Your task to perform on an android device: Open calendar and show me the third week of next month Image 0: 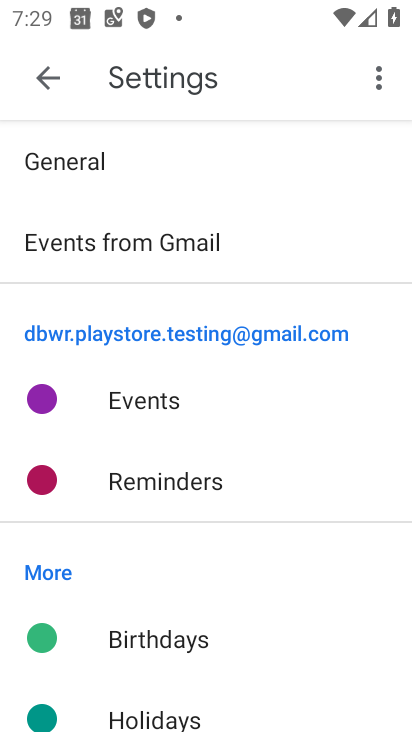
Step 0: press home button
Your task to perform on an android device: Open calendar and show me the third week of next month Image 1: 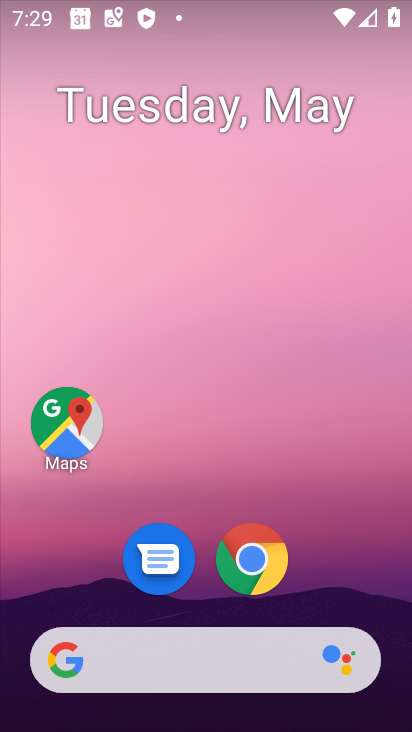
Step 1: drag from (391, 686) to (252, 43)
Your task to perform on an android device: Open calendar and show me the third week of next month Image 2: 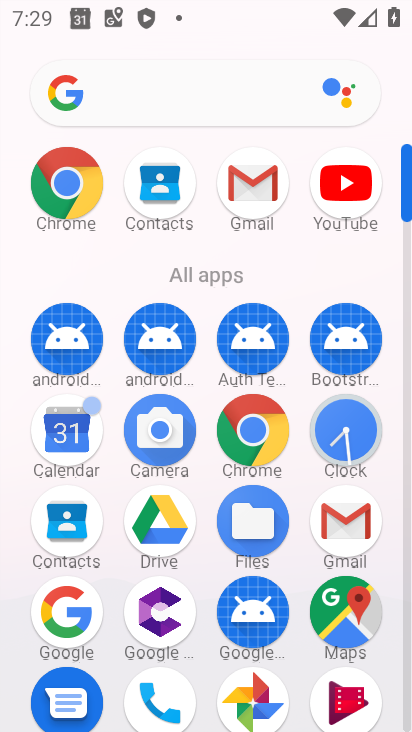
Step 2: click (94, 441)
Your task to perform on an android device: Open calendar and show me the third week of next month Image 3: 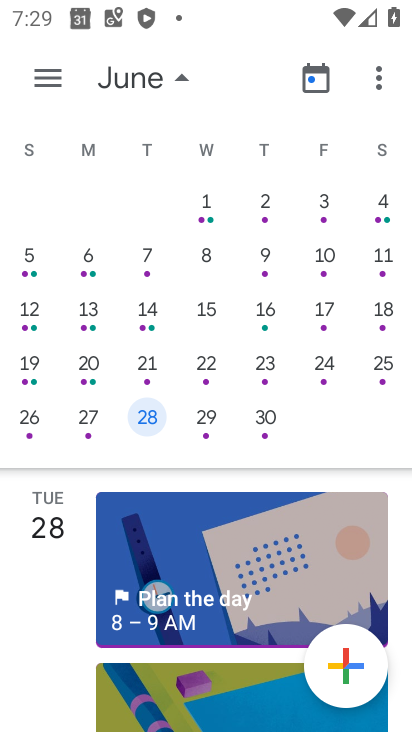
Step 3: drag from (380, 289) to (0, 240)
Your task to perform on an android device: Open calendar and show me the third week of next month Image 4: 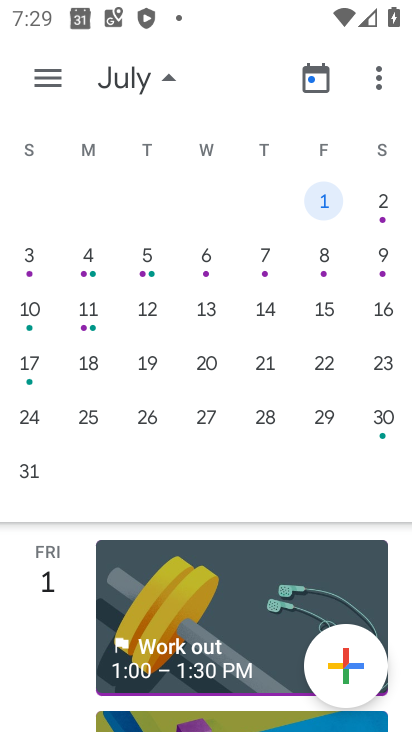
Step 4: click (41, 372)
Your task to perform on an android device: Open calendar and show me the third week of next month Image 5: 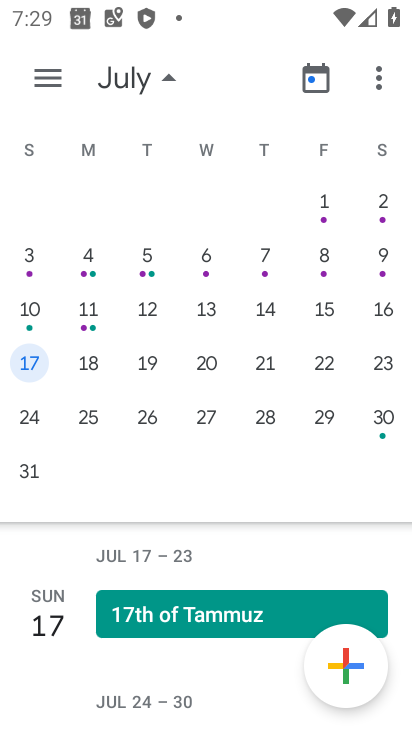
Step 5: task complete